Your task to perform on an android device: toggle notification dots Image 0: 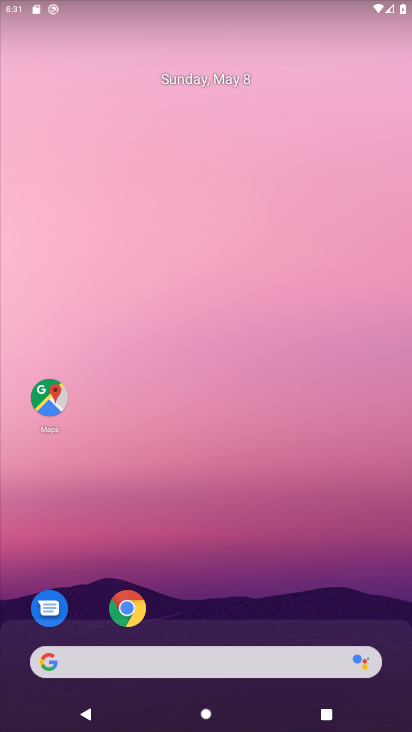
Step 0: drag from (207, 554) to (216, 3)
Your task to perform on an android device: toggle notification dots Image 1: 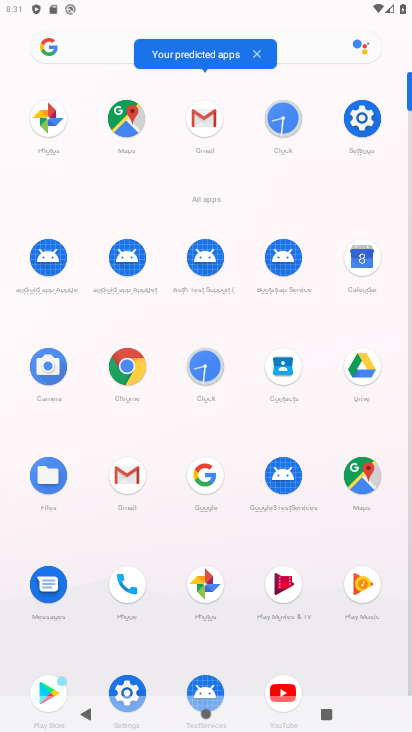
Step 1: click (363, 117)
Your task to perform on an android device: toggle notification dots Image 2: 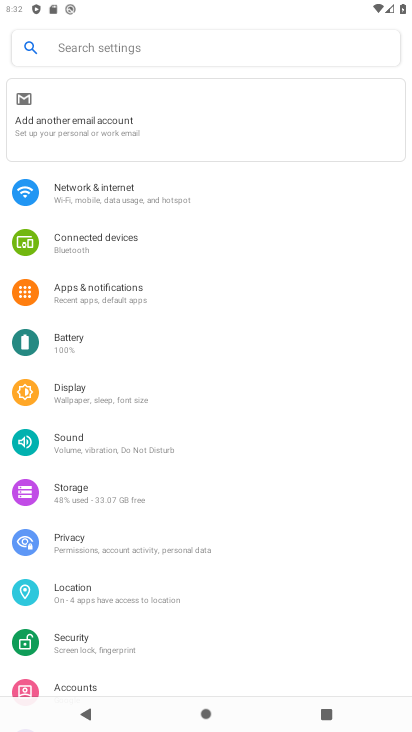
Step 2: click (130, 294)
Your task to perform on an android device: toggle notification dots Image 3: 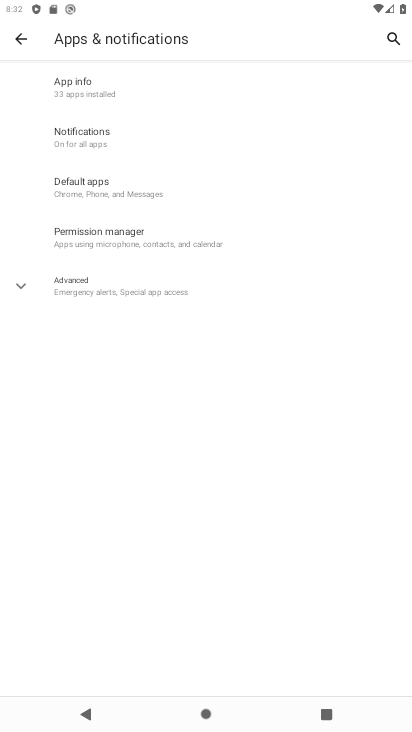
Step 3: click (90, 133)
Your task to perform on an android device: toggle notification dots Image 4: 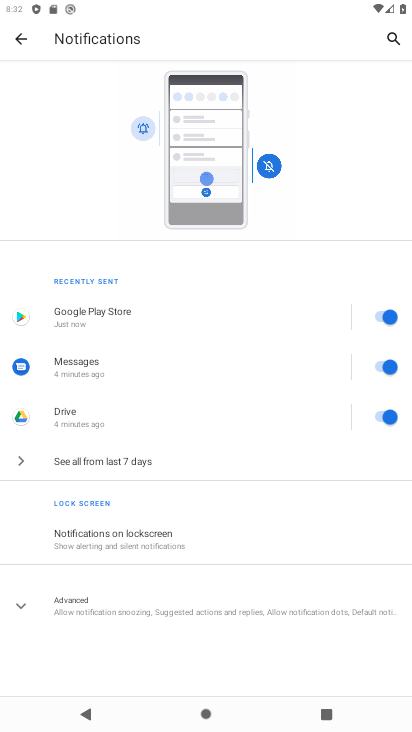
Step 4: drag from (197, 528) to (247, 391)
Your task to perform on an android device: toggle notification dots Image 5: 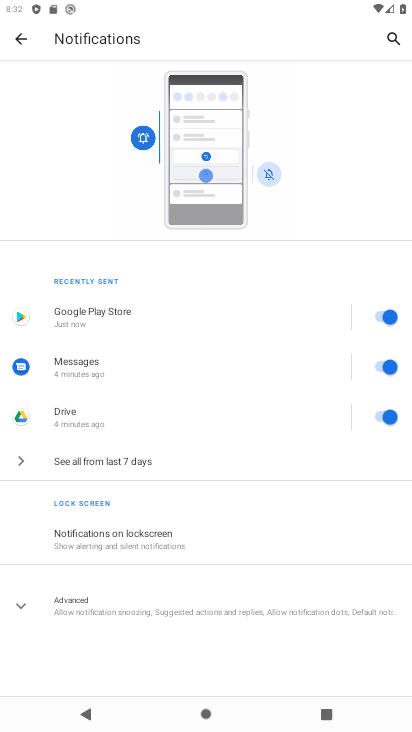
Step 5: click (148, 611)
Your task to perform on an android device: toggle notification dots Image 6: 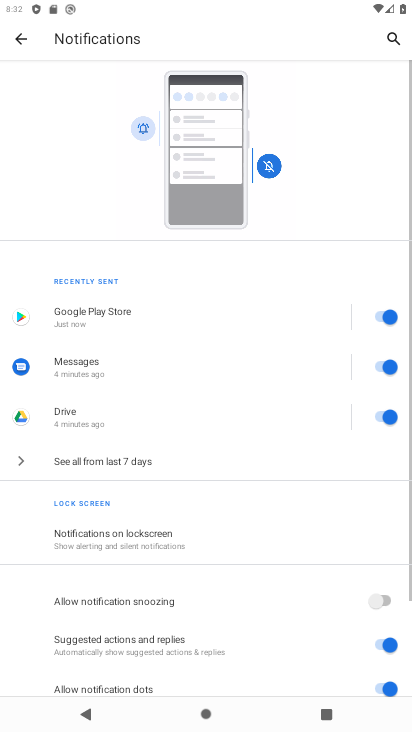
Step 6: drag from (148, 611) to (190, 456)
Your task to perform on an android device: toggle notification dots Image 7: 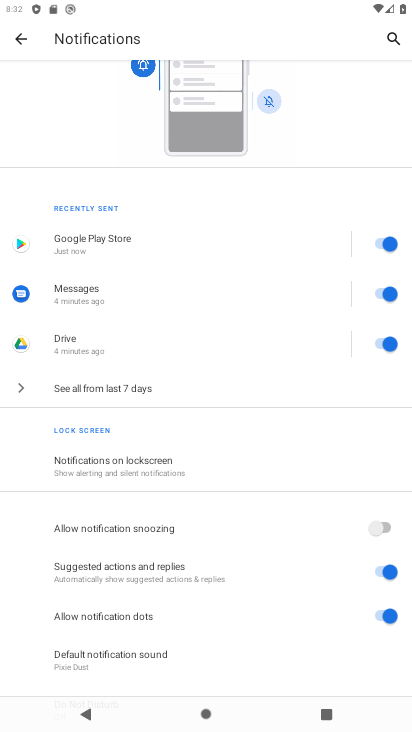
Step 7: click (393, 623)
Your task to perform on an android device: toggle notification dots Image 8: 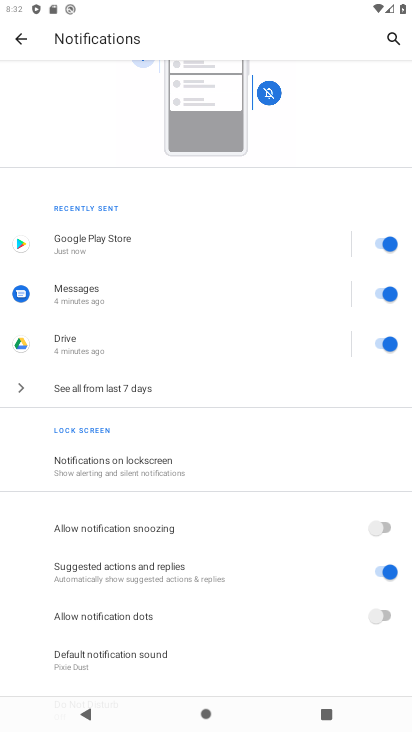
Step 8: task complete